Your task to perform on an android device: delete location history Image 0: 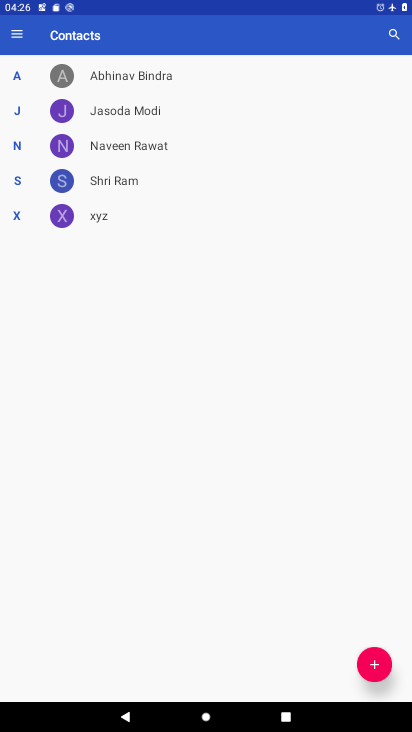
Step 0: press home button
Your task to perform on an android device: delete location history Image 1: 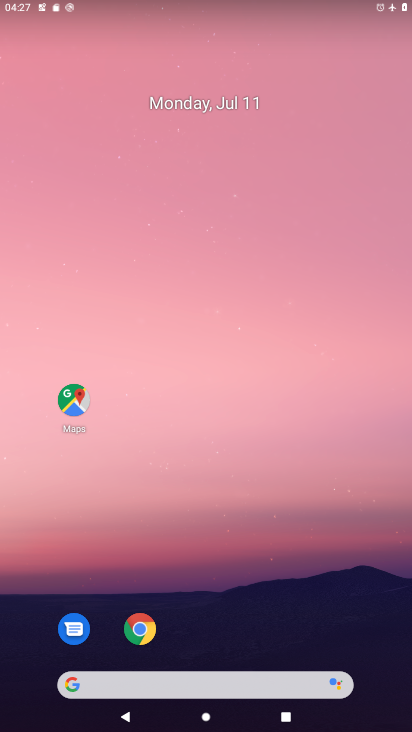
Step 1: click (71, 400)
Your task to perform on an android device: delete location history Image 2: 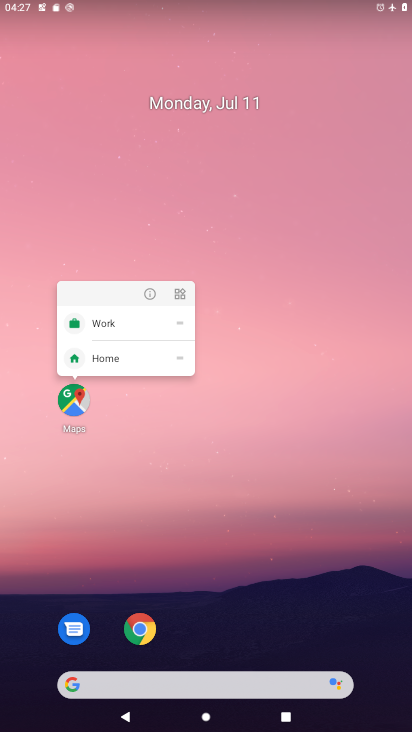
Step 2: click (84, 406)
Your task to perform on an android device: delete location history Image 3: 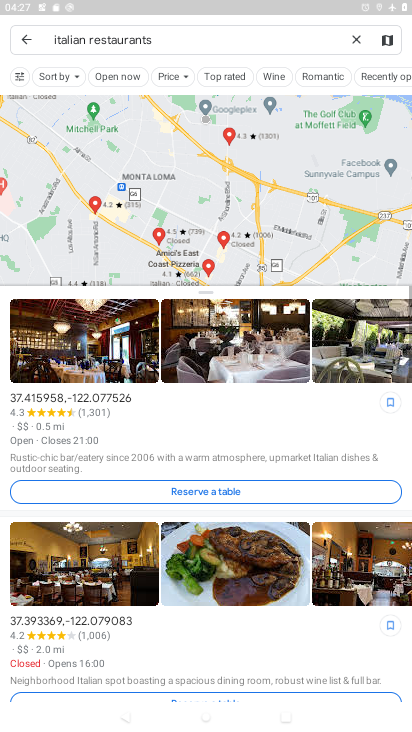
Step 3: click (21, 39)
Your task to perform on an android device: delete location history Image 4: 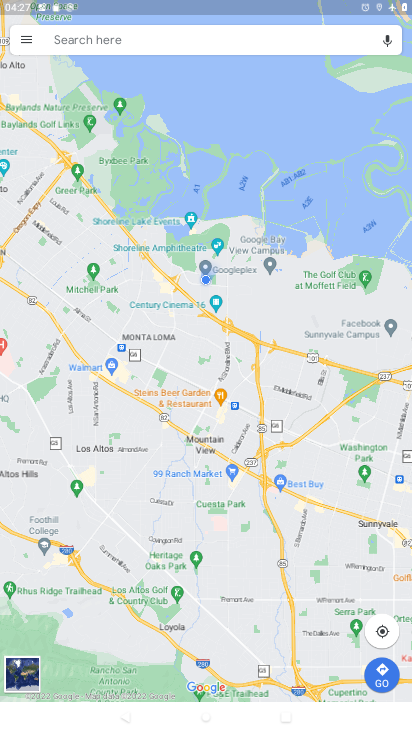
Step 4: click (21, 39)
Your task to perform on an android device: delete location history Image 5: 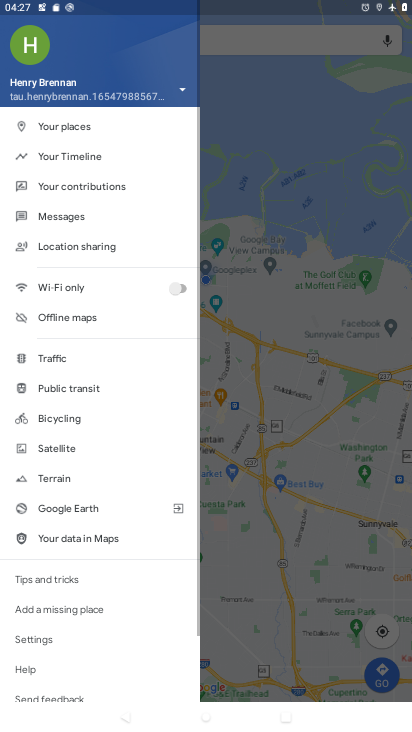
Step 5: click (77, 148)
Your task to perform on an android device: delete location history Image 6: 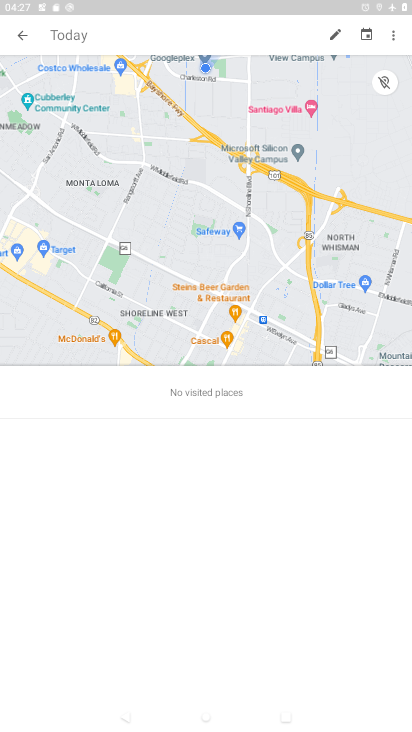
Step 6: click (401, 31)
Your task to perform on an android device: delete location history Image 7: 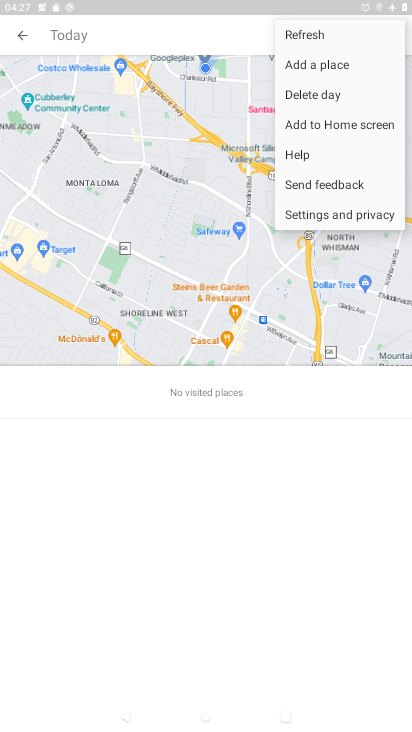
Step 7: click (313, 213)
Your task to perform on an android device: delete location history Image 8: 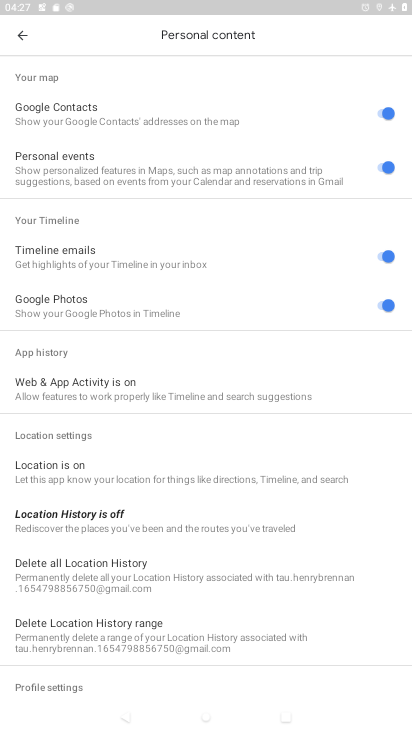
Step 8: click (70, 572)
Your task to perform on an android device: delete location history Image 9: 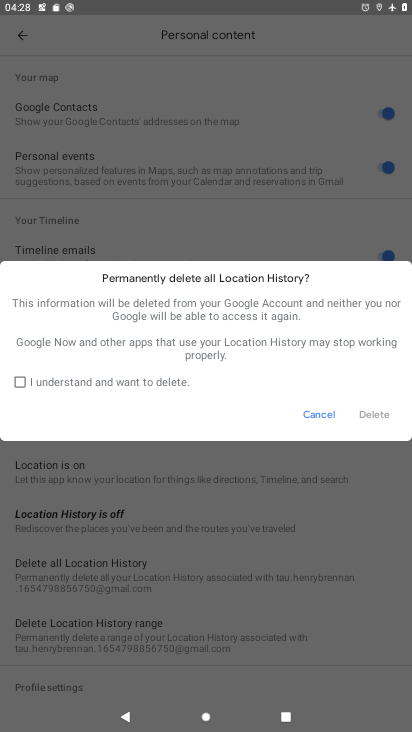
Step 9: click (43, 386)
Your task to perform on an android device: delete location history Image 10: 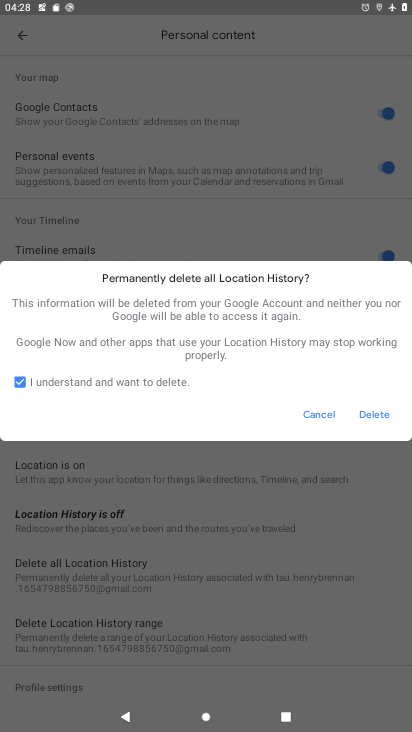
Step 10: click (371, 418)
Your task to perform on an android device: delete location history Image 11: 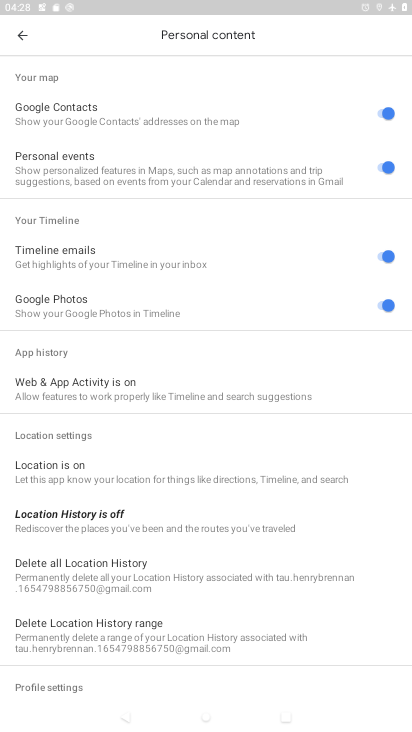
Step 11: task complete